Your task to perform on an android device: Open calendar and show me the first week of next month Image 0: 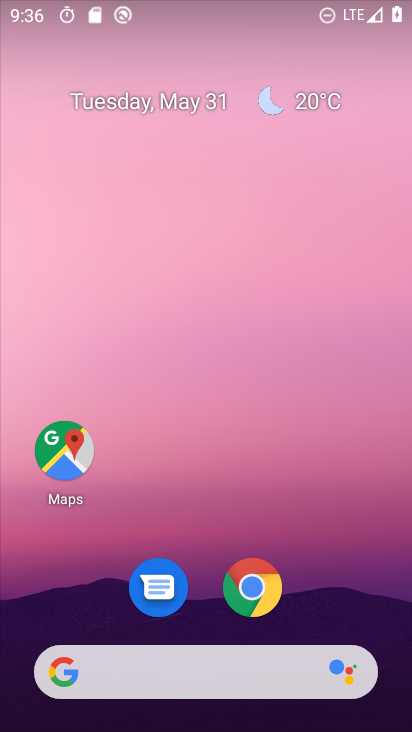
Step 0: click (149, 94)
Your task to perform on an android device: Open calendar and show me the first week of next month Image 1: 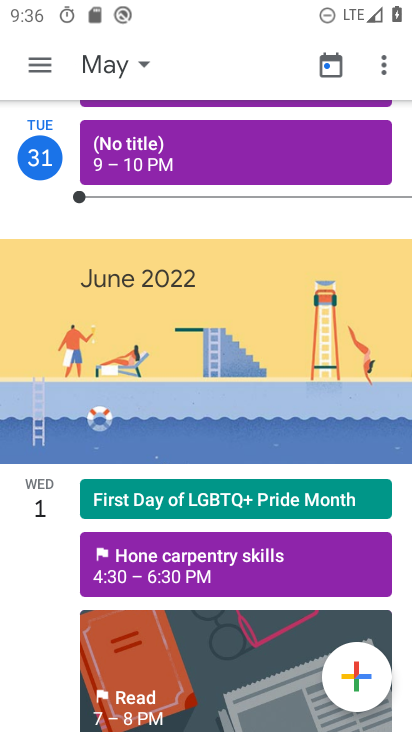
Step 1: click (115, 72)
Your task to perform on an android device: Open calendar and show me the first week of next month Image 2: 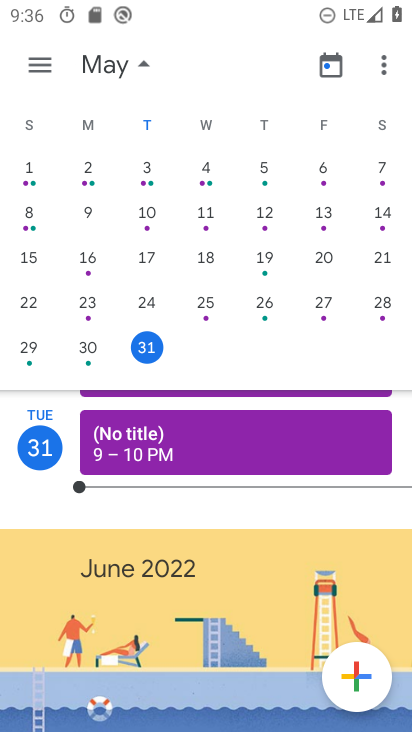
Step 2: task complete